Your task to perform on an android device: Open calendar and show me the second week of next month Image 0: 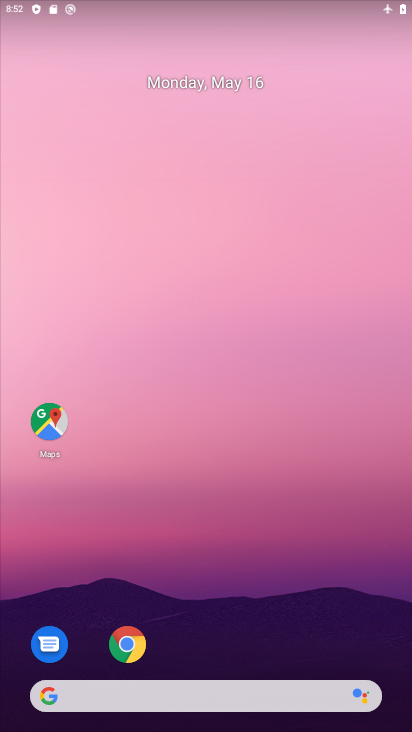
Step 0: drag from (157, 724) to (140, 37)
Your task to perform on an android device: Open calendar and show me the second week of next month Image 1: 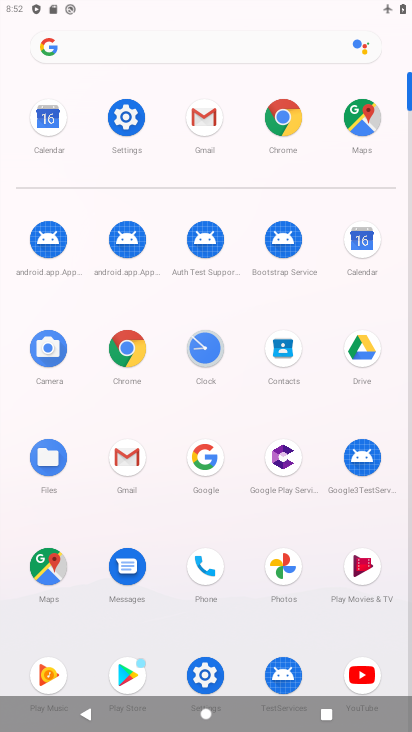
Step 1: click (365, 246)
Your task to perform on an android device: Open calendar and show me the second week of next month Image 2: 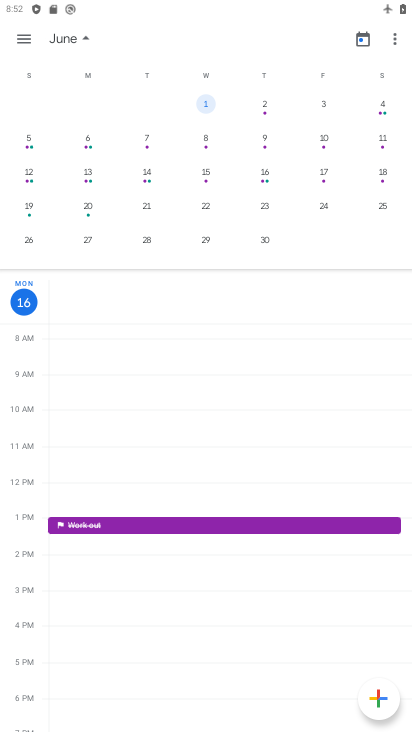
Step 2: click (27, 140)
Your task to perform on an android device: Open calendar and show me the second week of next month Image 3: 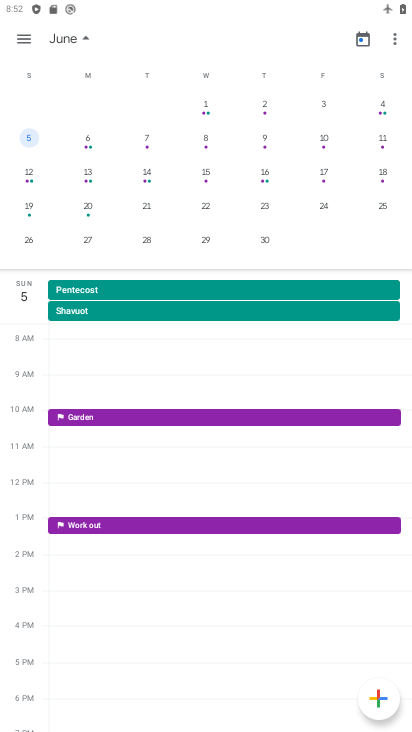
Step 3: task complete